Your task to perform on an android device: turn pop-ups off in chrome Image 0: 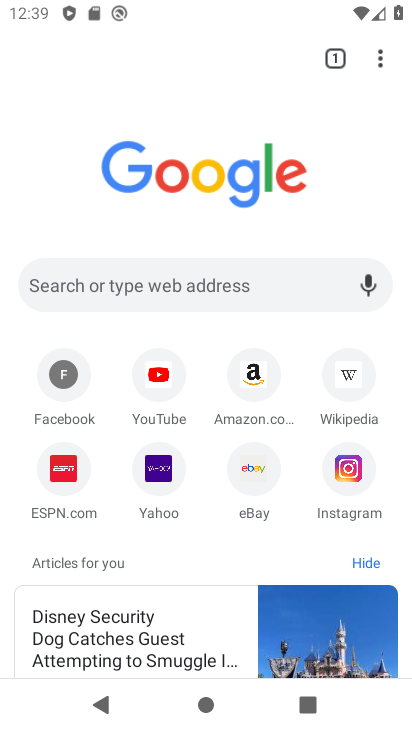
Step 0: click (373, 60)
Your task to perform on an android device: turn pop-ups off in chrome Image 1: 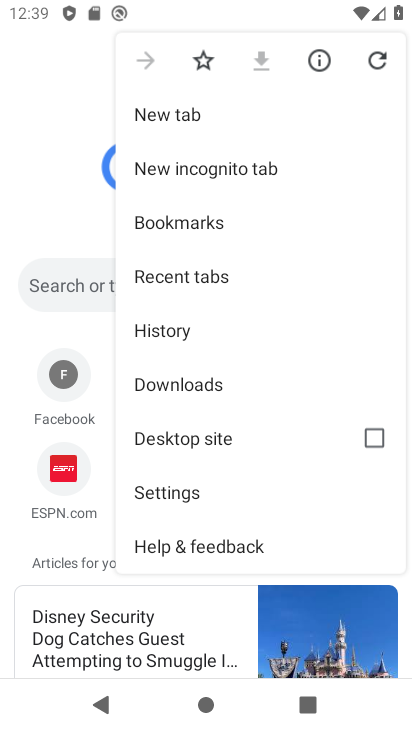
Step 1: click (222, 483)
Your task to perform on an android device: turn pop-ups off in chrome Image 2: 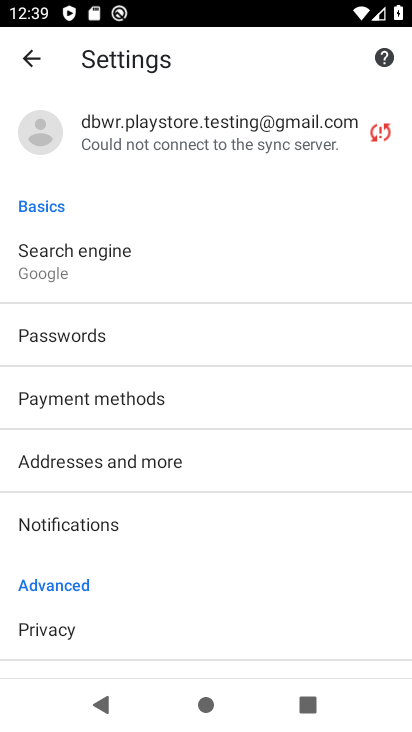
Step 2: drag from (291, 598) to (235, 332)
Your task to perform on an android device: turn pop-ups off in chrome Image 3: 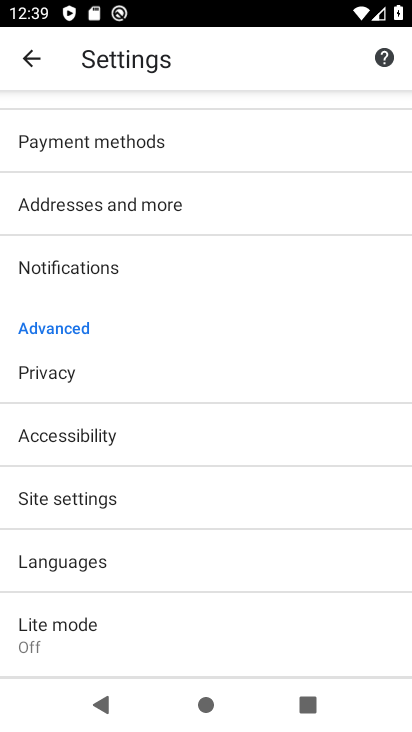
Step 3: click (112, 493)
Your task to perform on an android device: turn pop-ups off in chrome Image 4: 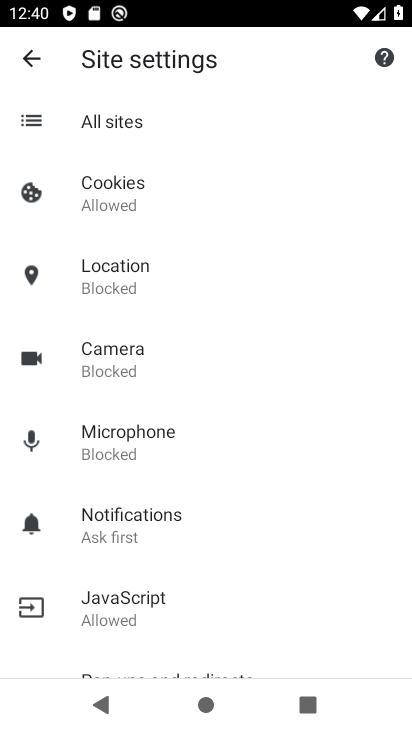
Step 4: drag from (234, 593) to (211, 383)
Your task to perform on an android device: turn pop-ups off in chrome Image 5: 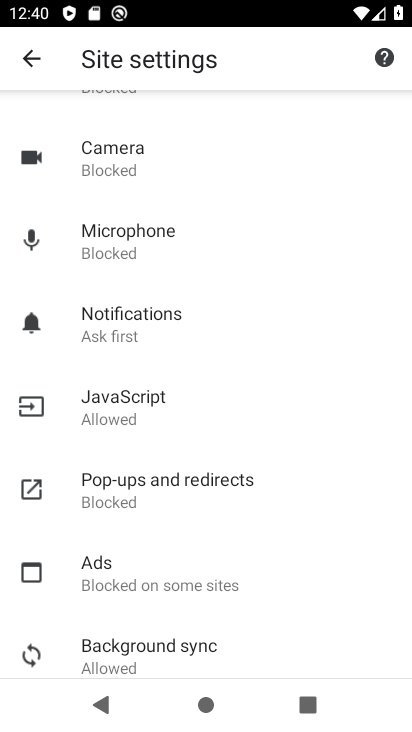
Step 5: click (189, 502)
Your task to perform on an android device: turn pop-ups off in chrome Image 6: 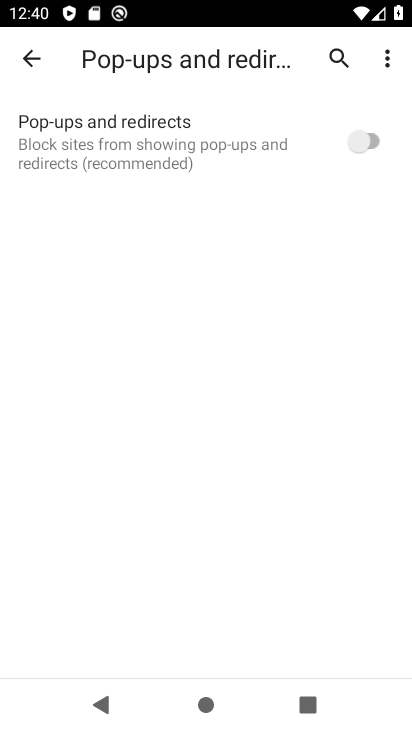
Step 6: task complete